Your task to perform on an android device: Open the web browser Image 0: 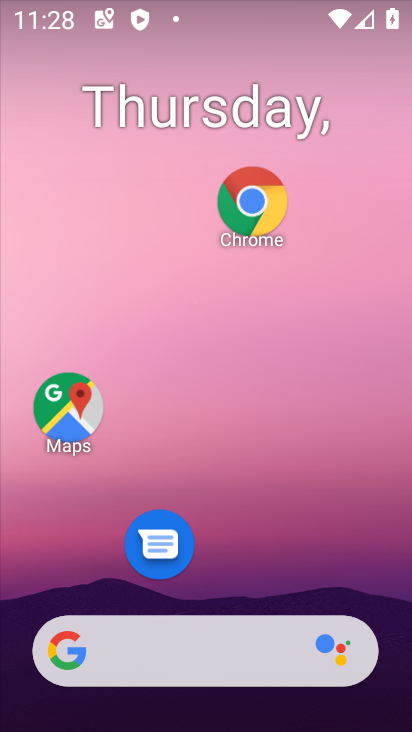
Step 0: drag from (211, 581) to (228, 90)
Your task to perform on an android device: Open the web browser Image 1: 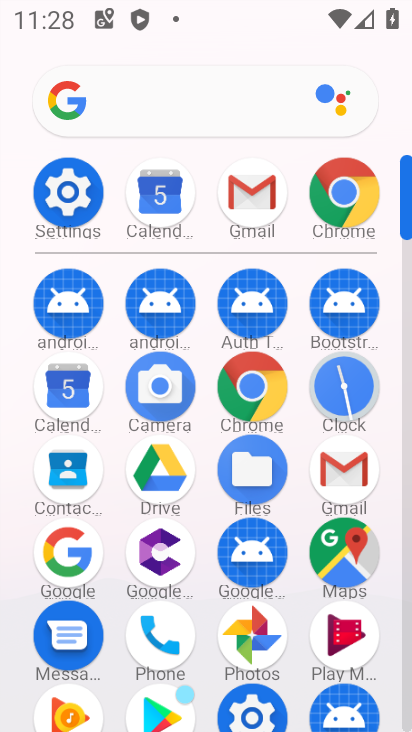
Step 1: click (247, 384)
Your task to perform on an android device: Open the web browser Image 2: 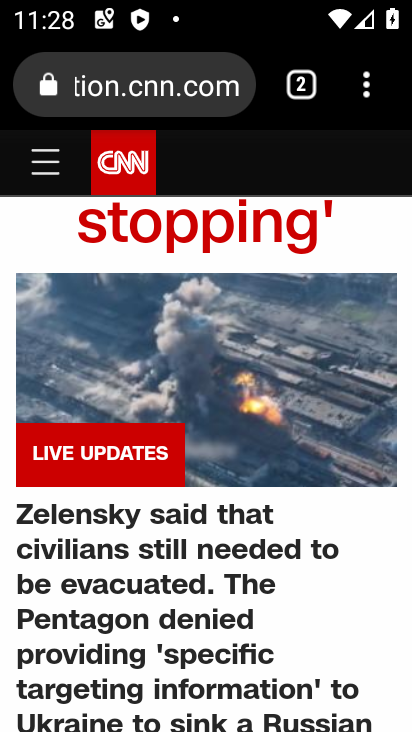
Step 2: click (298, 80)
Your task to perform on an android device: Open the web browser Image 3: 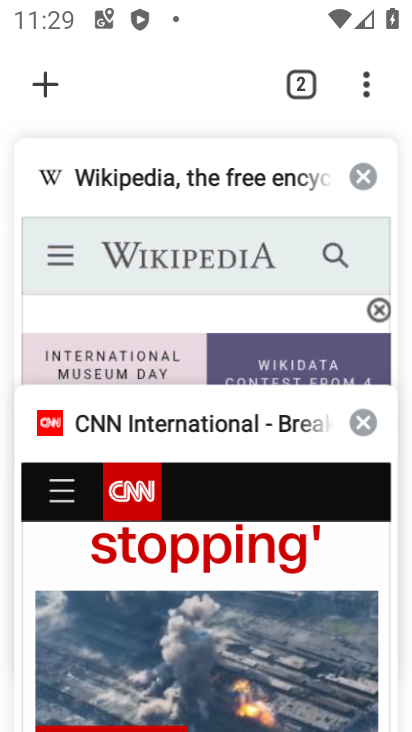
Step 3: click (156, 445)
Your task to perform on an android device: Open the web browser Image 4: 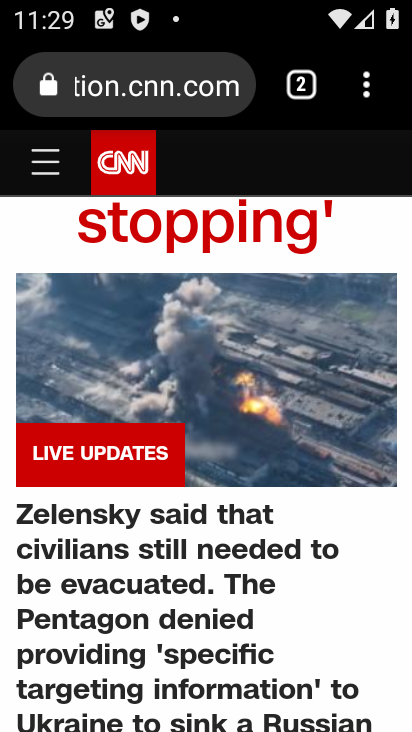
Step 4: task complete